Your task to perform on an android device: see sites visited before in the chrome app Image 0: 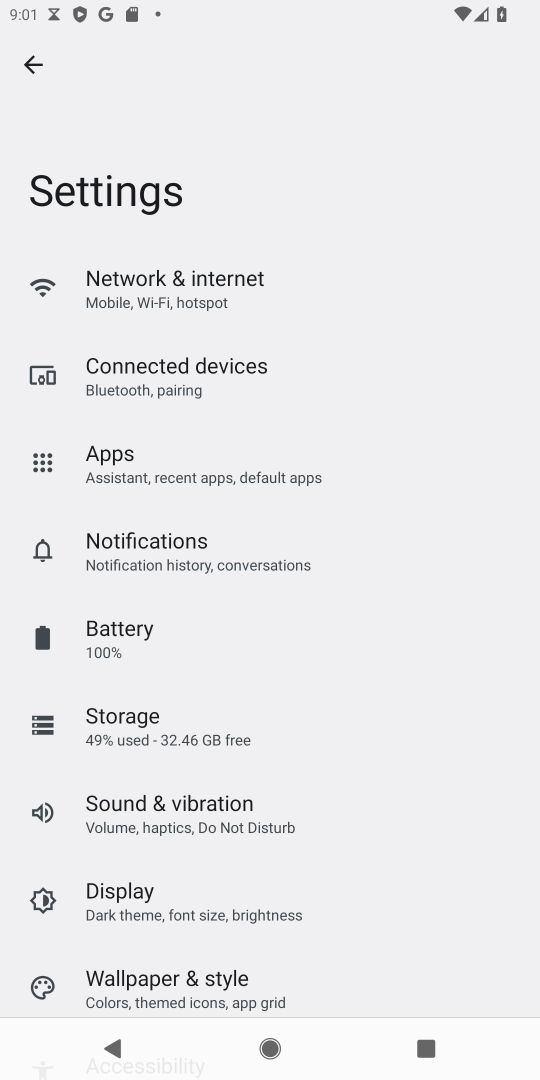
Step 0: press home button
Your task to perform on an android device: see sites visited before in the chrome app Image 1: 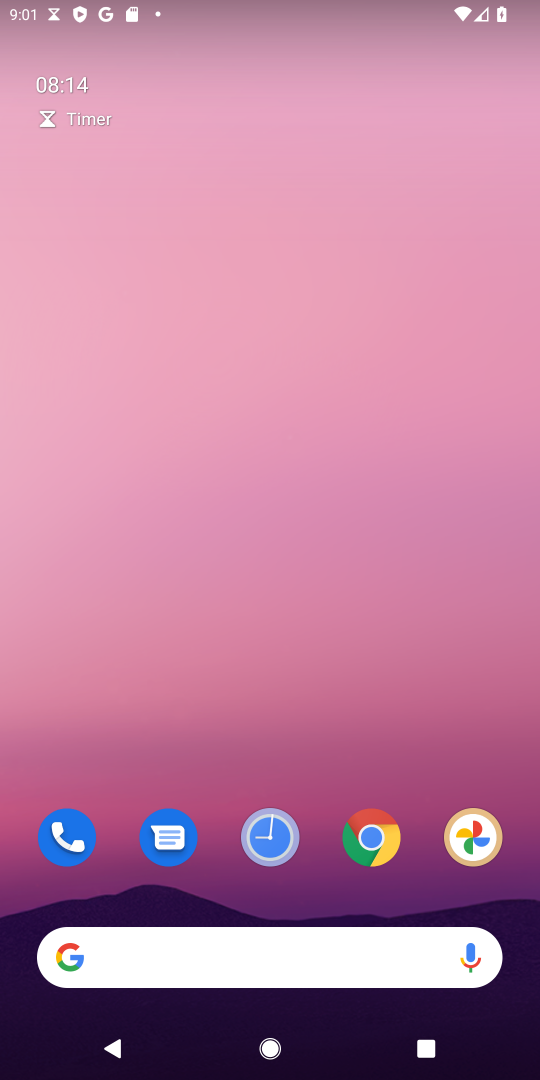
Step 1: click (376, 838)
Your task to perform on an android device: see sites visited before in the chrome app Image 2: 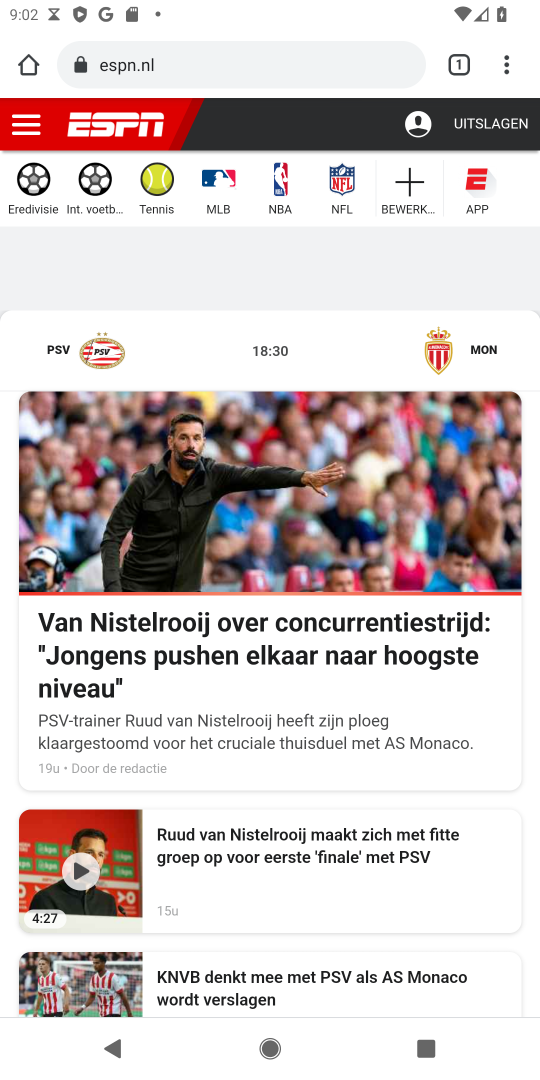
Step 2: task complete